Your task to perform on an android device: Open notification settings Image 0: 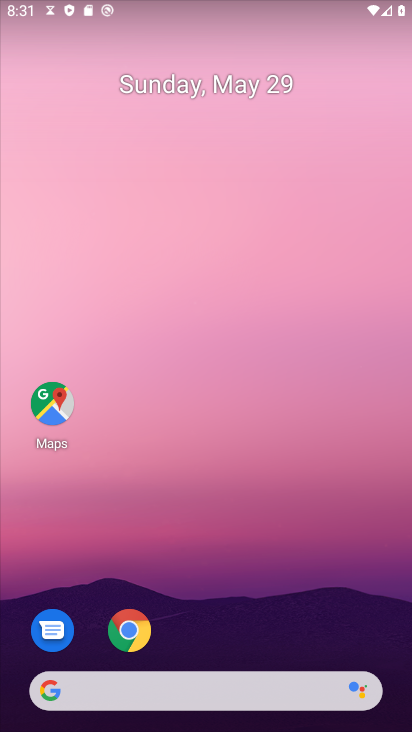
Step 0: drag from (255, 624) to (259, 61)
Your task to perform on an android device: Open notification settings Image 1: 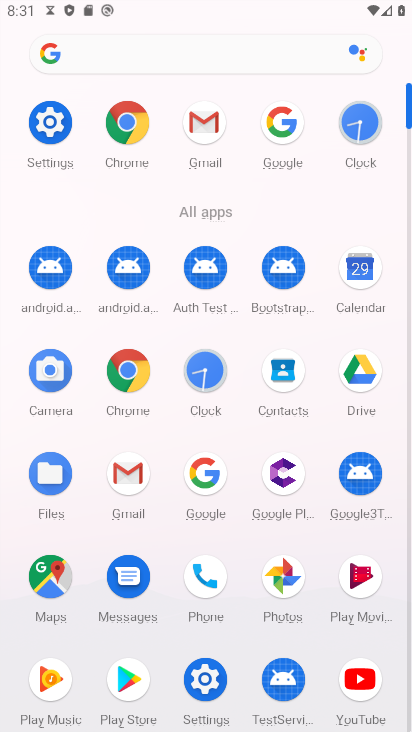
Step 1: click (49, 123)
Your task to perform on an android device: Open notification settings Image 2: 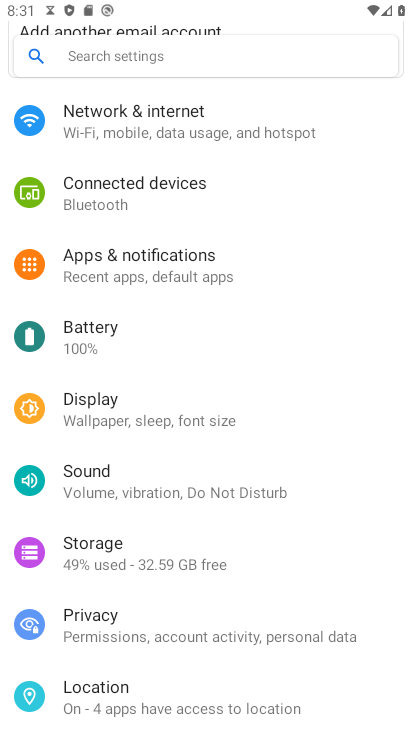
Step 2: click (118, 263)
Your task to perform on an android device: Open notification settings Image 3: 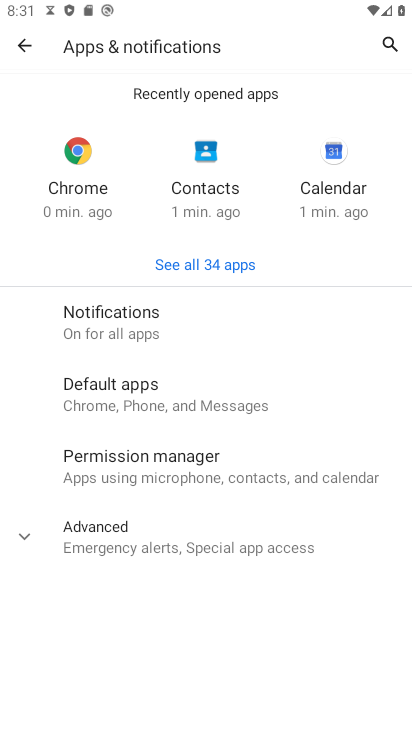
Step 3: task complete